Your task to perform on an android device: change text size in settings app Image 0: 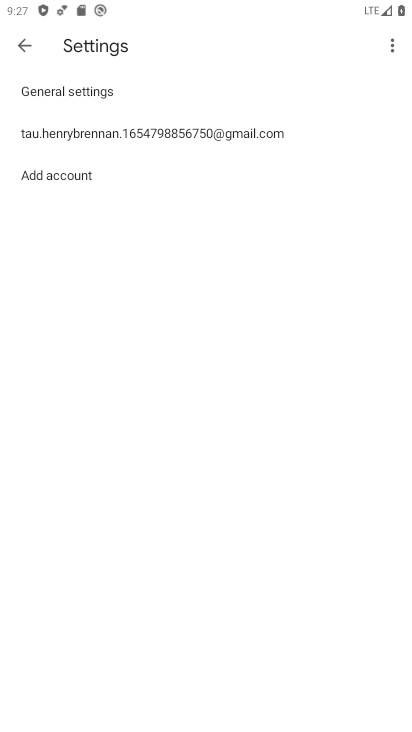
Step 0: press home button
Your task to perform on an android device: change text size in settings app Image 1: 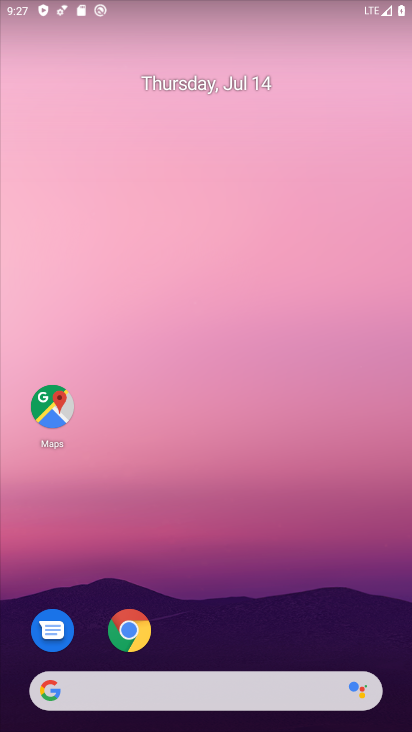
Step 1: drag from (177, 657) to (283, 43)
Your task to perform on an android device: change text size in settings app Image 2: 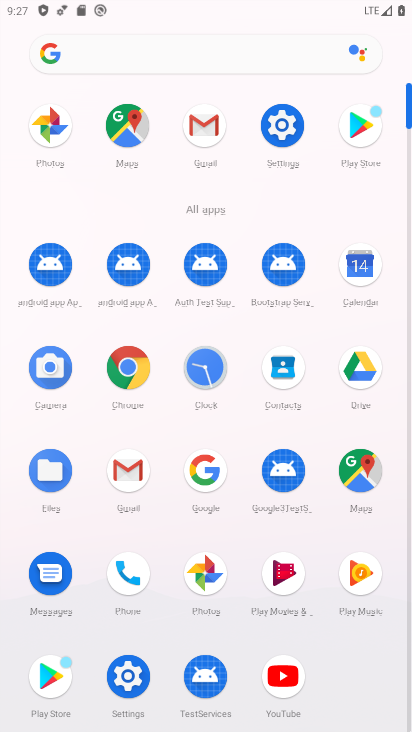
Step 2: click (120, 675)
Your task to perform on an android device: change text size in settings app Image 3: 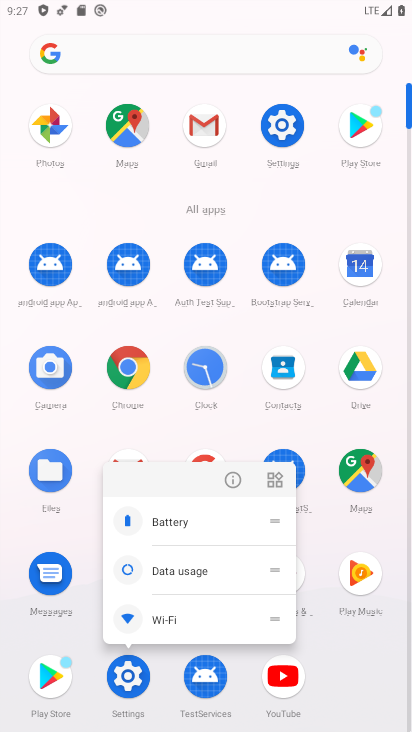
Step 3: click (120, 675)
Your task to perform on an android device: change text size in settings app Image 4: 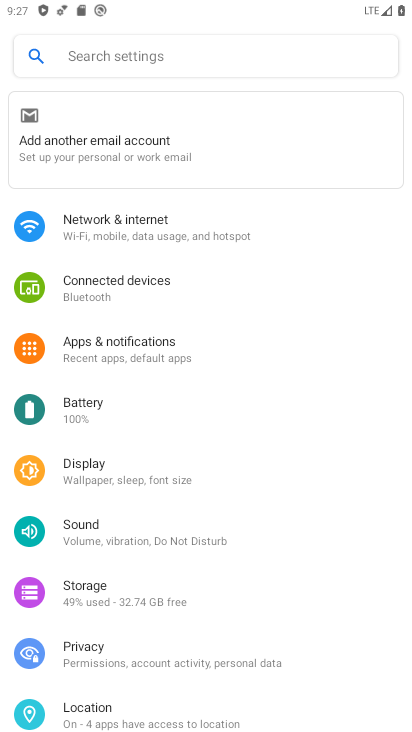
Step 4: click (111, 477)
Your task to perform on an android device: change text size in settings app Image 5: 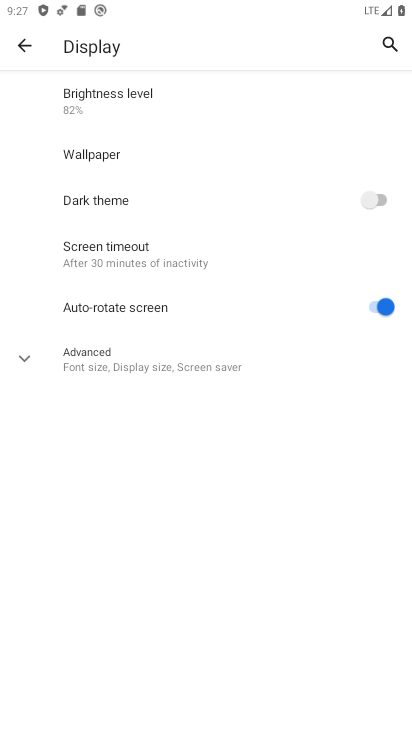
Step 5: click (110, 360)
Your task to perform on an android device: change text size in settings app Image 6: 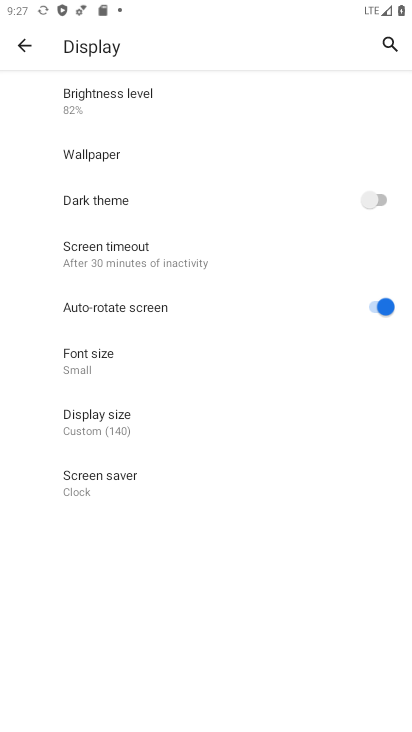
Step 6: click (141, 353)
Your task to perform on an android device: change text size in settings app Image 7: 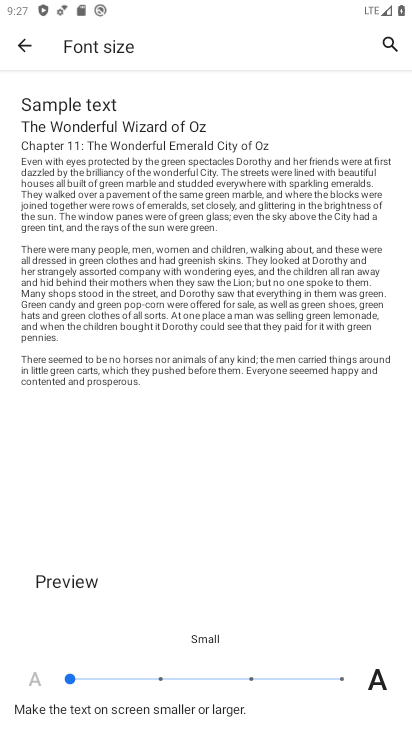
Step 7: click (250, 677)
Your task to perform on an android device: change text size in settings app Image 8: 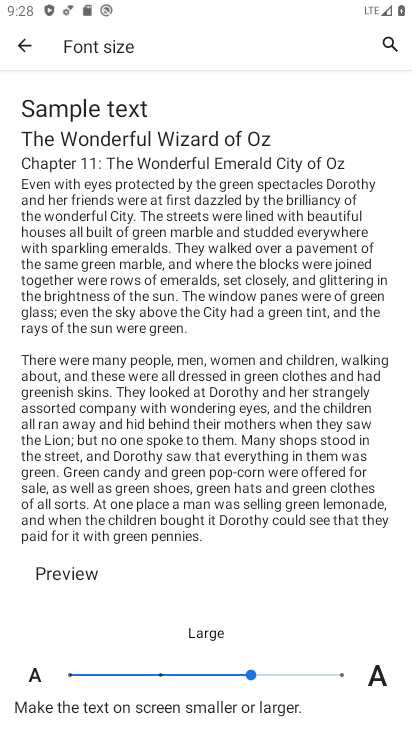
Step 8: task complete